Your task to perform on an android device: check out phone information Image 0: 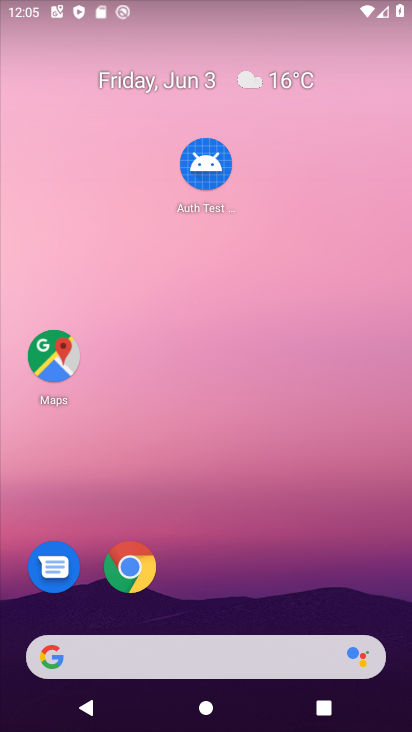
Step 0: drag from (229, 623) to (202, 29)
Your task to perform on an android device: check out phone information Image 1: 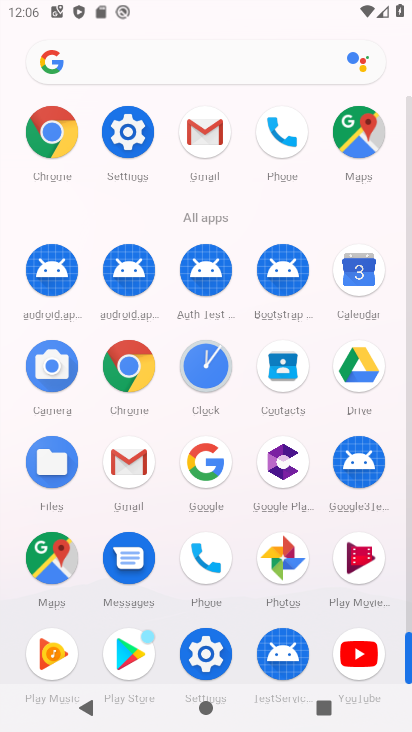
Step 1: click (146, 135)
Your task to perform on an android device: check out phone information Image 2: 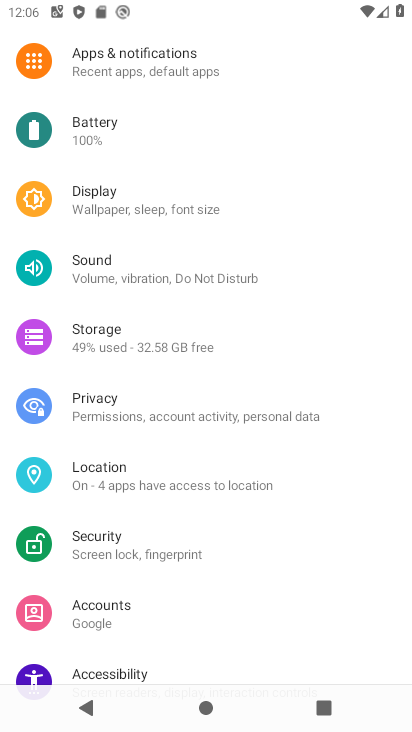
Step 2: drag from (195, 631) to (229, 99)
Your task to perform on an android device: check out phone information Image 3: 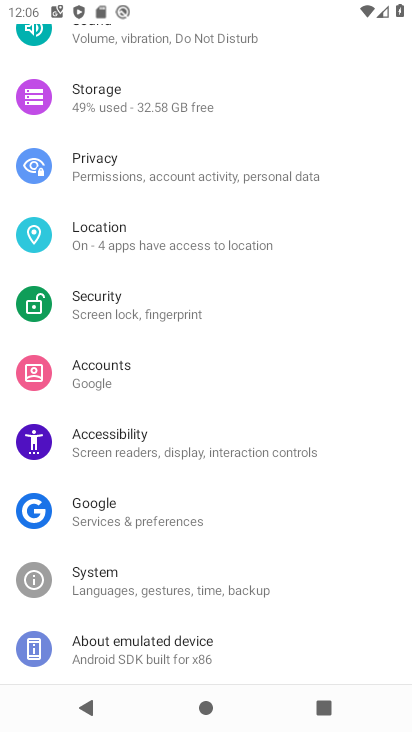
Step 3: click (130, 640)
Your task to perform on an android device: check out phone information Image 4: 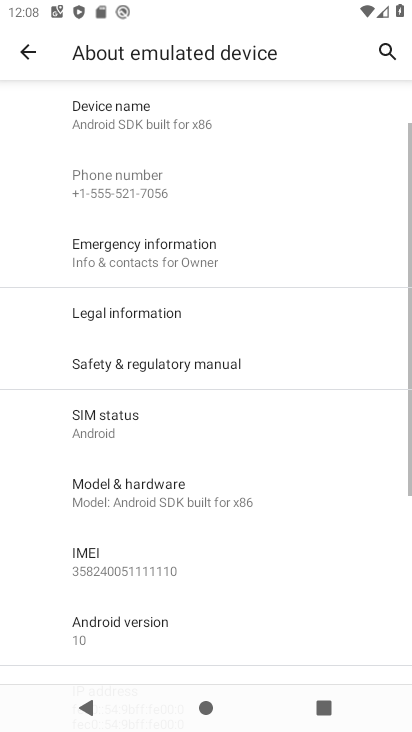
Step 4: task complete